Your task to perform on an android device: install app "LinkedIn" Image 0: 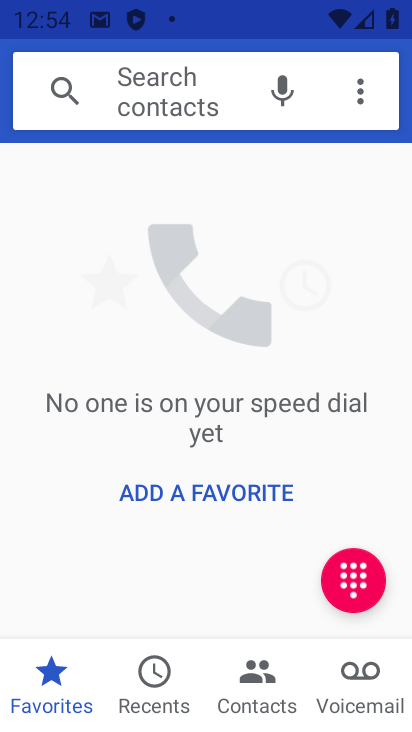
Step 0: press back button
Your task to perform on an android device: install app "LinkedIn" Image 1: 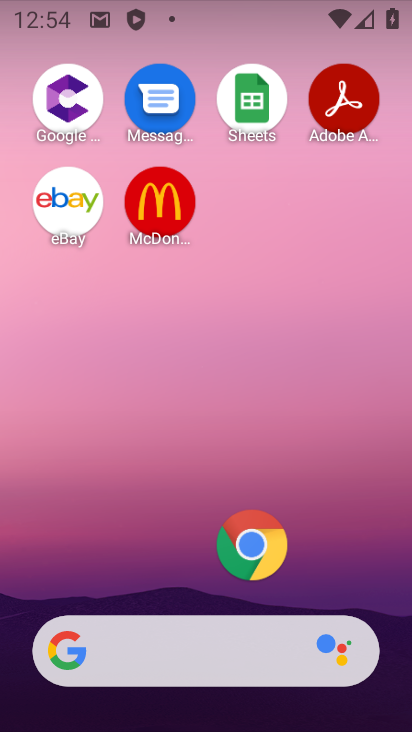
Step 1: drag from (175, 555) to (246, 61)
Your task to perform on an android device: install app "LinkedIn" Image 2: 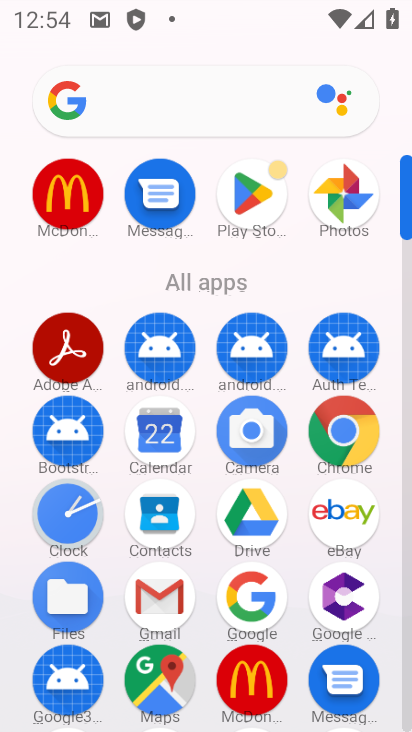
Step 2: click (264, 196)
Your task to perform on an android device: install app "LinkedIn" Image 3: 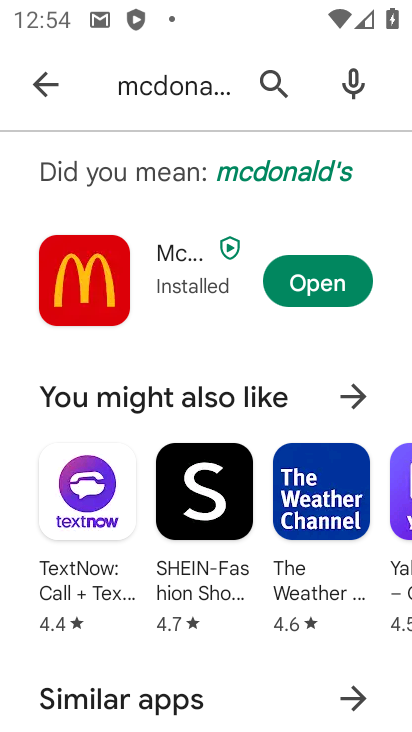
Step 3: click (270, 89)
Your task to perform on an android device: install app "LinkedIn" Image 4: 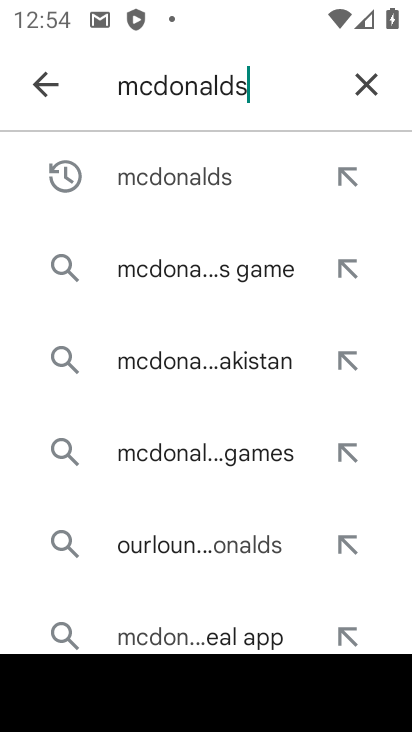
Step 4: click (361, 79)
Your task to perform on an android device: install app "LinkedIn" Image 5: 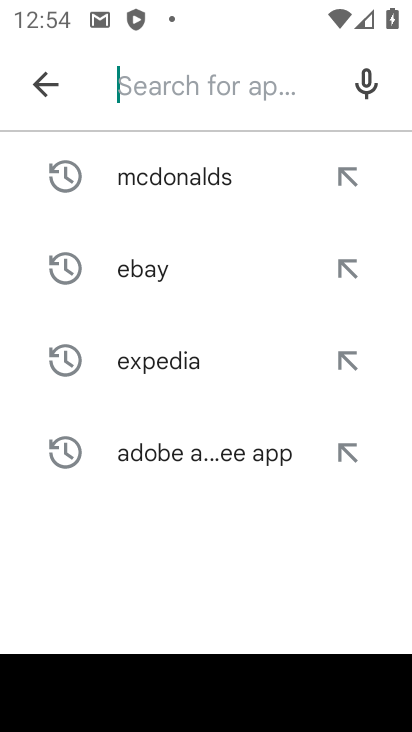
Step 5: click (183, 91)
Your task to perform on an android device: install app "LinkedIn" Image 6: 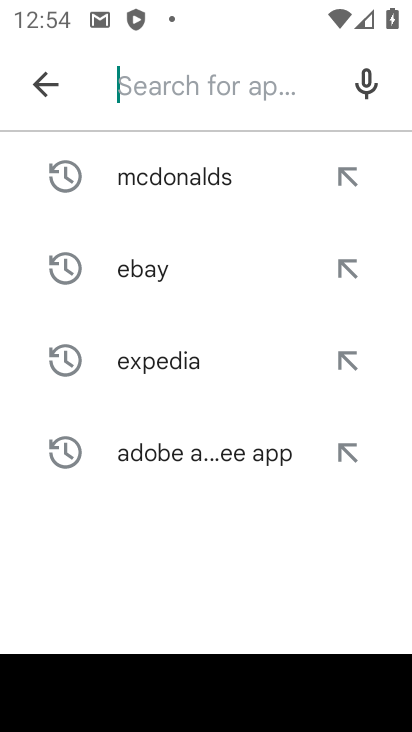
Step 6: click (131, 88)
Your task to perform on an android device: install app "LinkedIn" Image 7: 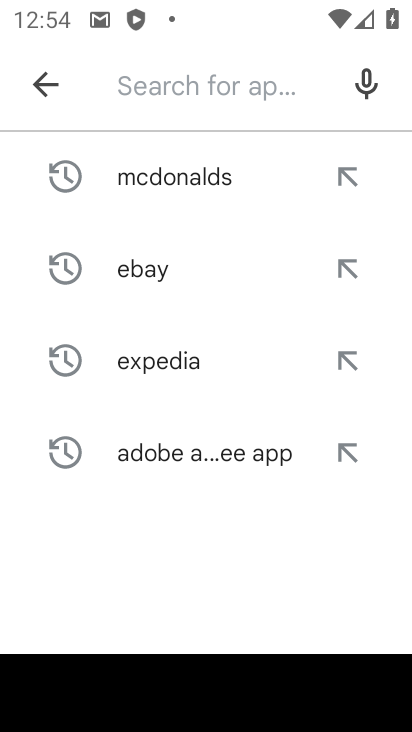
Step 7: type "LinkedIn"
Your task to perform on an android device: install app "LinkedIn" Image 8: 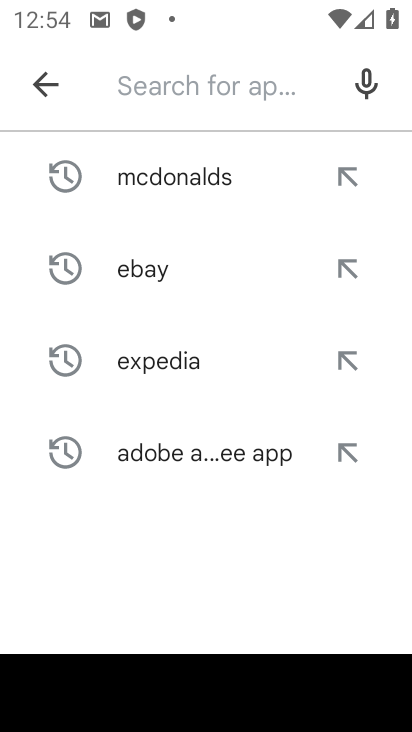
Step 8: click (153, 565)
Your task to perform on an android device: install app "LinkedIn" Image 9: 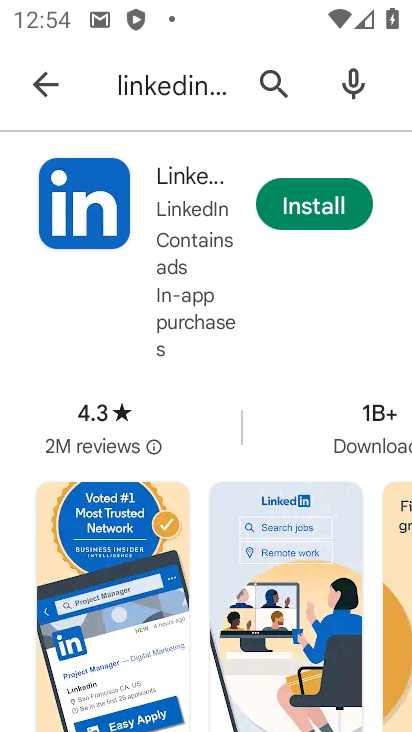
Step 9: click (301, 205)
Your task to perform on an android device: install app "LinkedIn" Image 10: 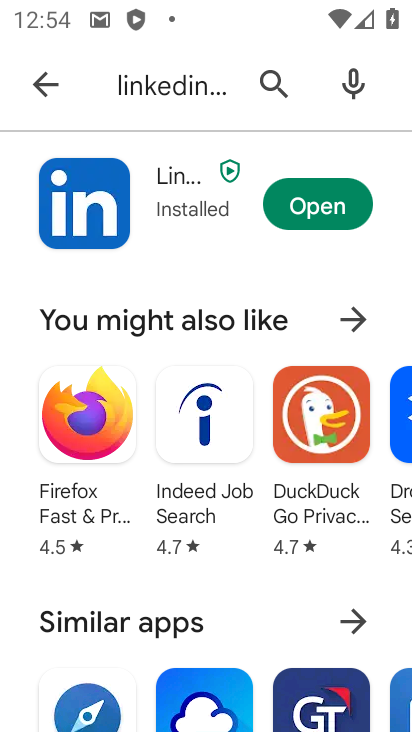
Step 10: task complete